Your task to perform on an android device: What is the news today? Image 0: 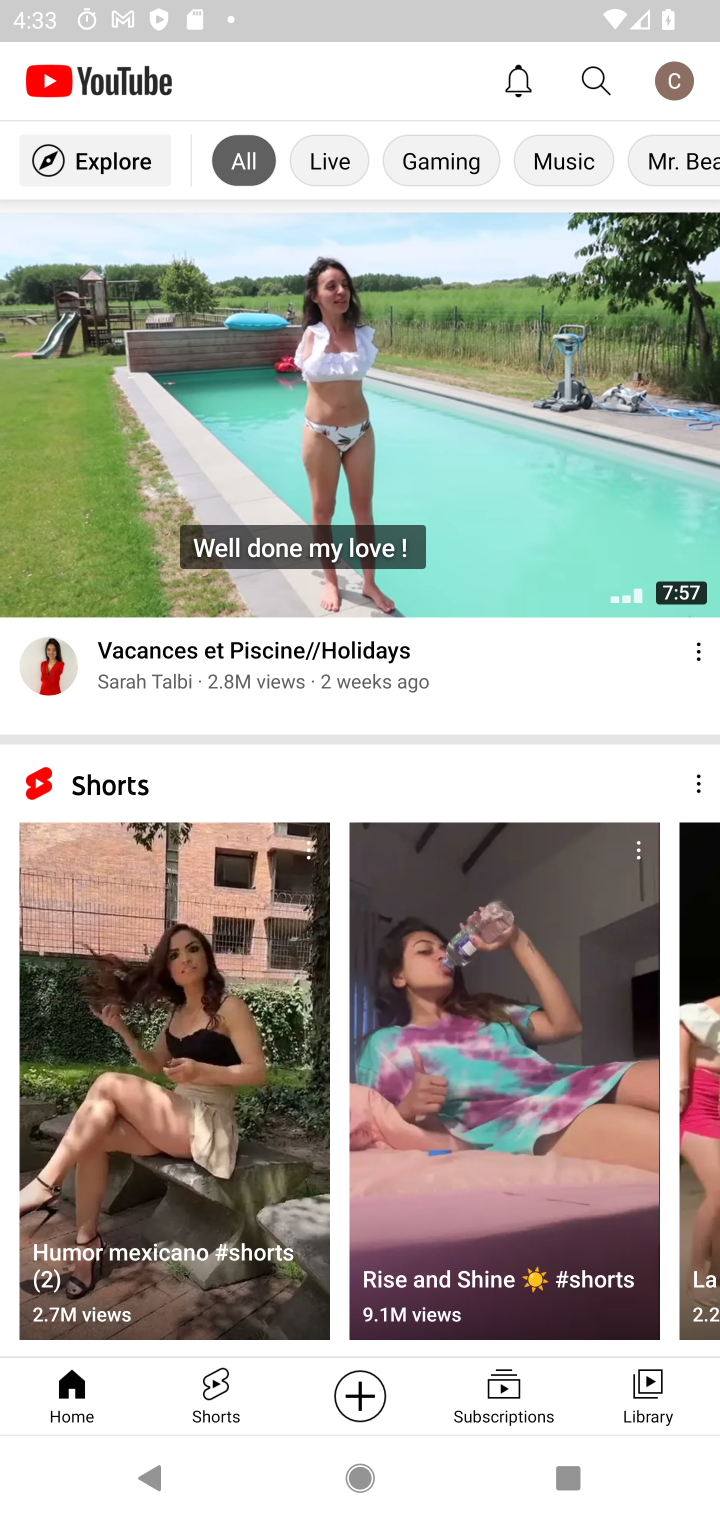
Step 0: click (673, 561)
Your task to perform on an android device: What is the news today? Image 1: 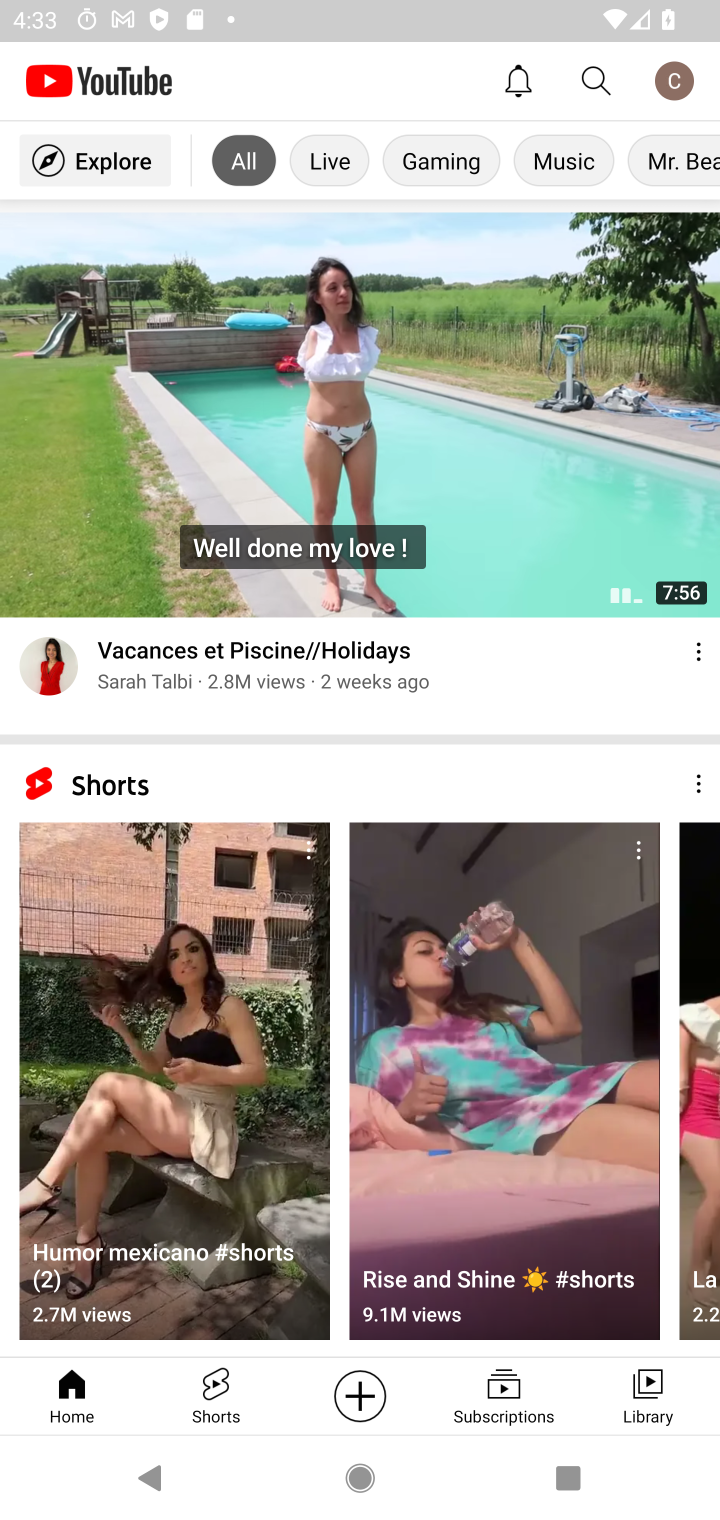
Step 1: press home button
Your task to perform on an android device: What is the news today? Image 2: 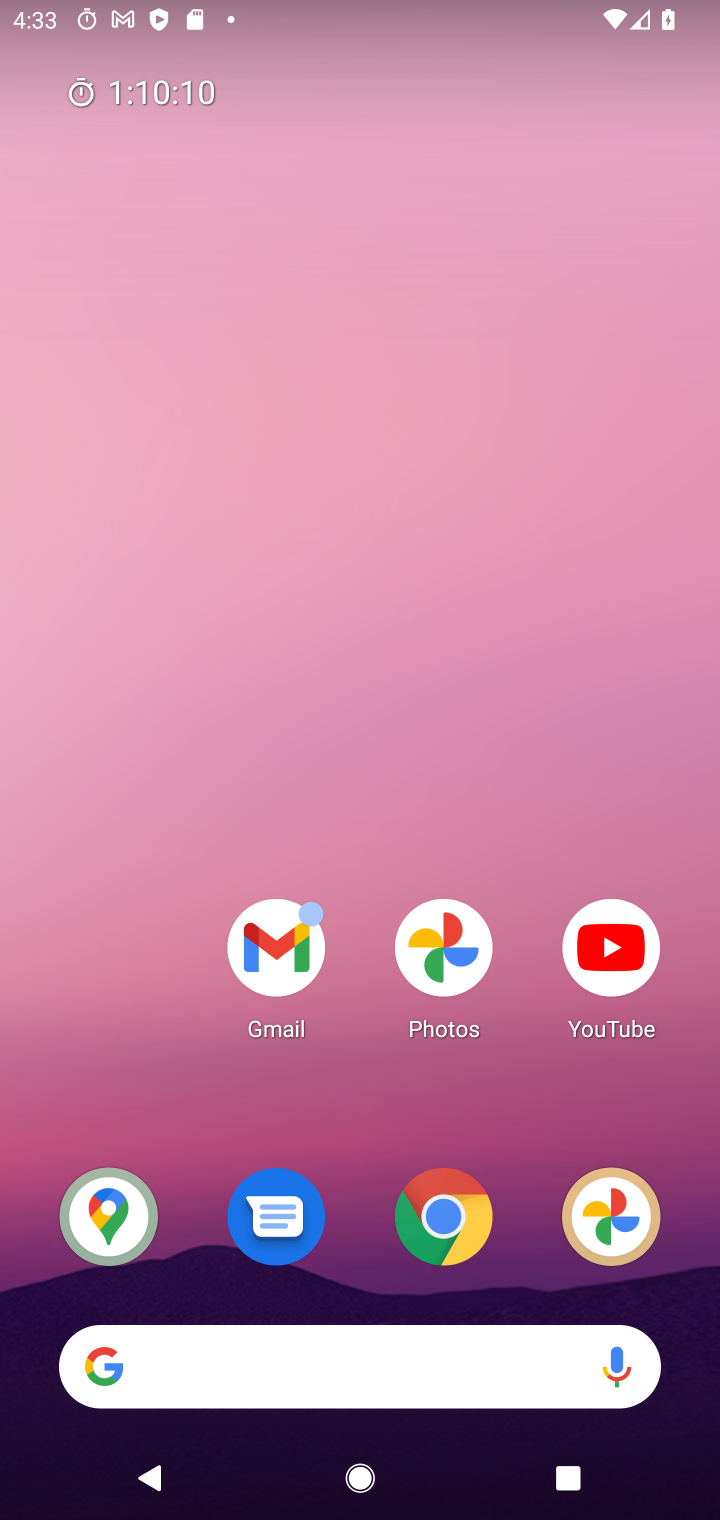
Step 2: click (257, 1369)
Your task to perform on an android device: What is the news today? Image 3: 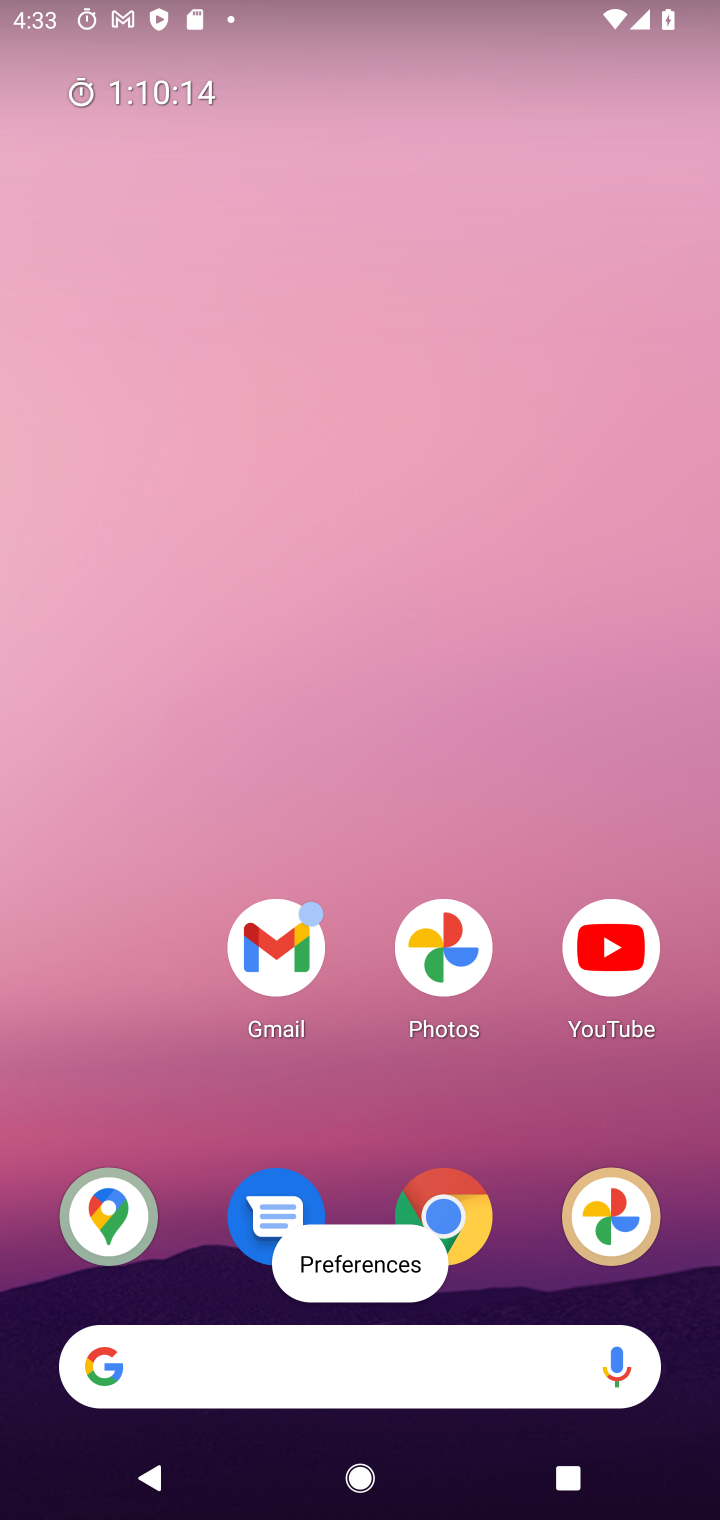
Step 3: click (227, 1371)
Your task to perform on an android device: What is the news today? Image 4: 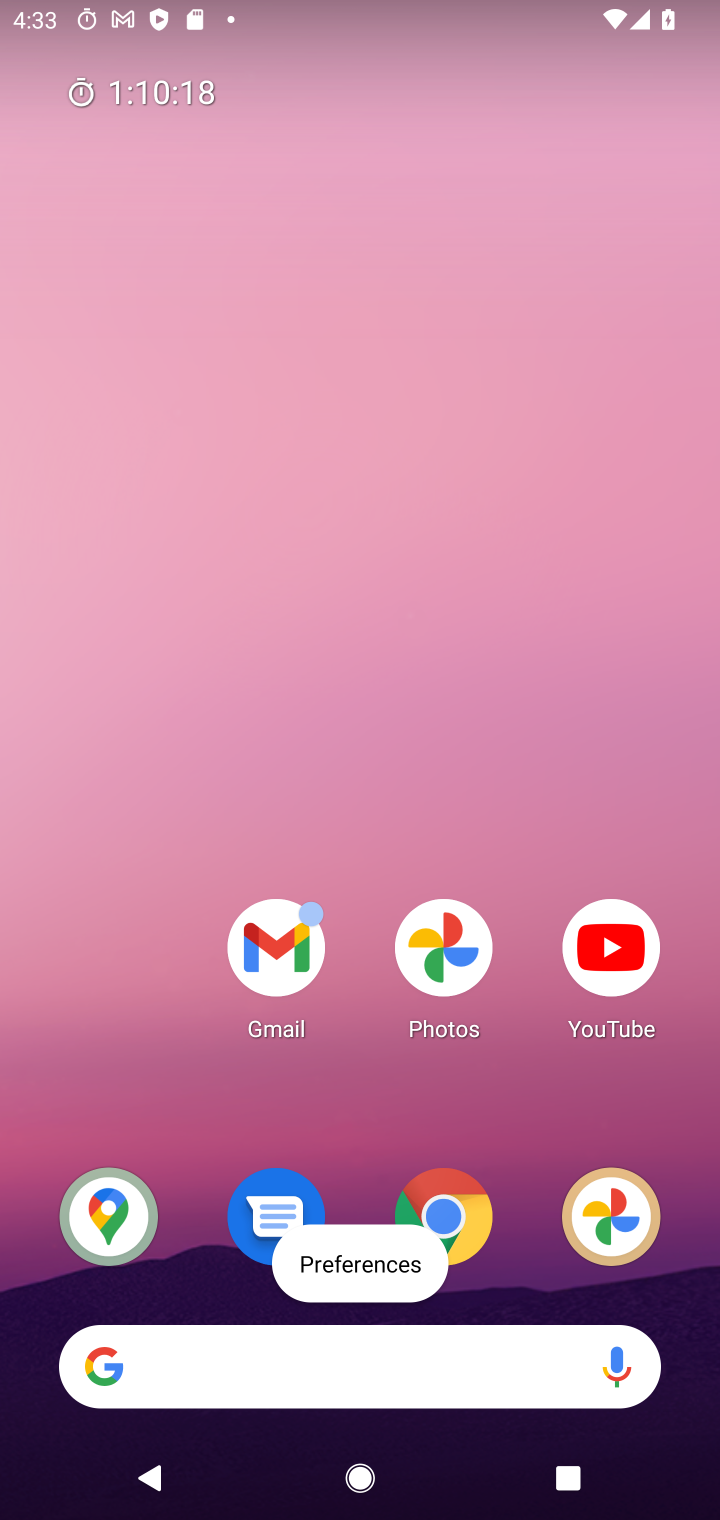
Step 4: click (325, 1366)
Your task to perform on an android device: What is the news today? Image 5: 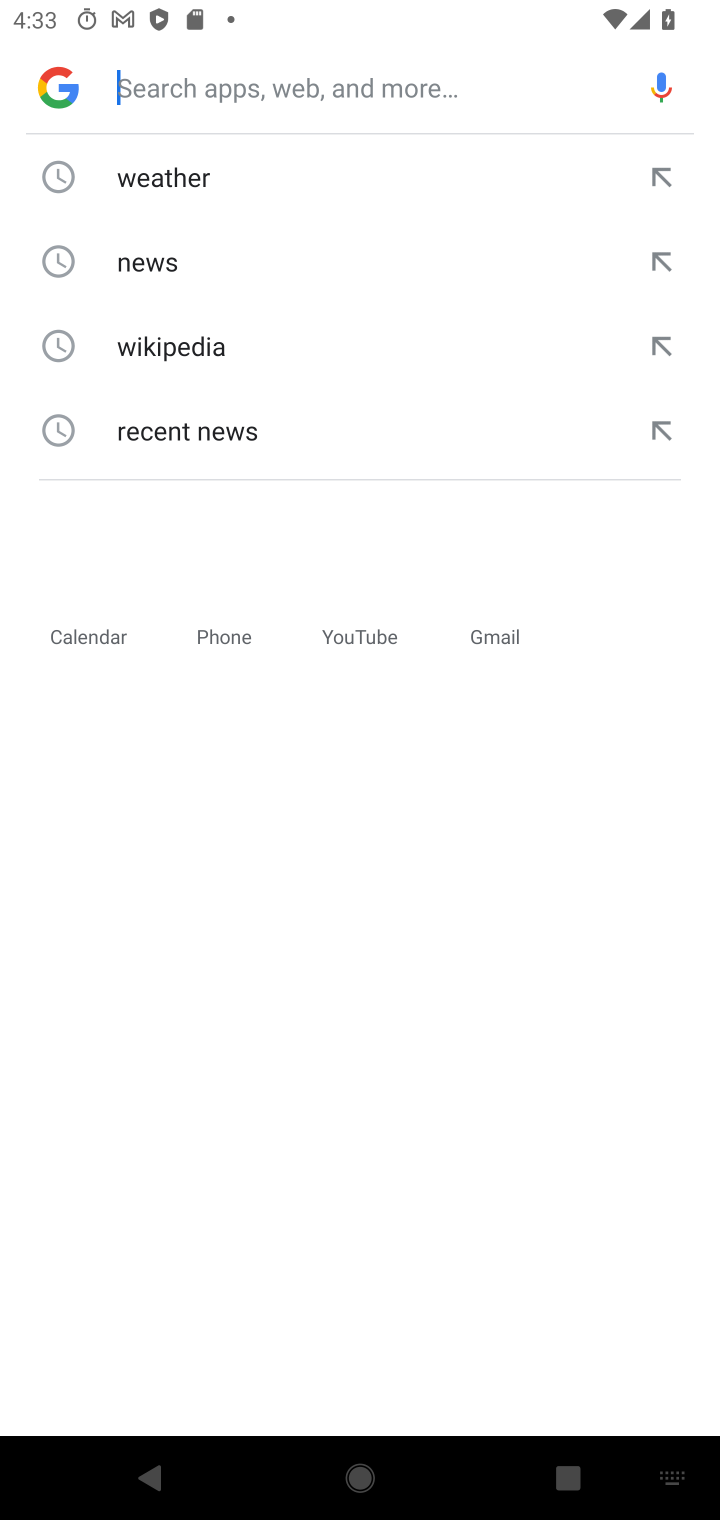
Step 5: click (172, 275)
Your task to perform on an android device: What is the news today? Image 6: 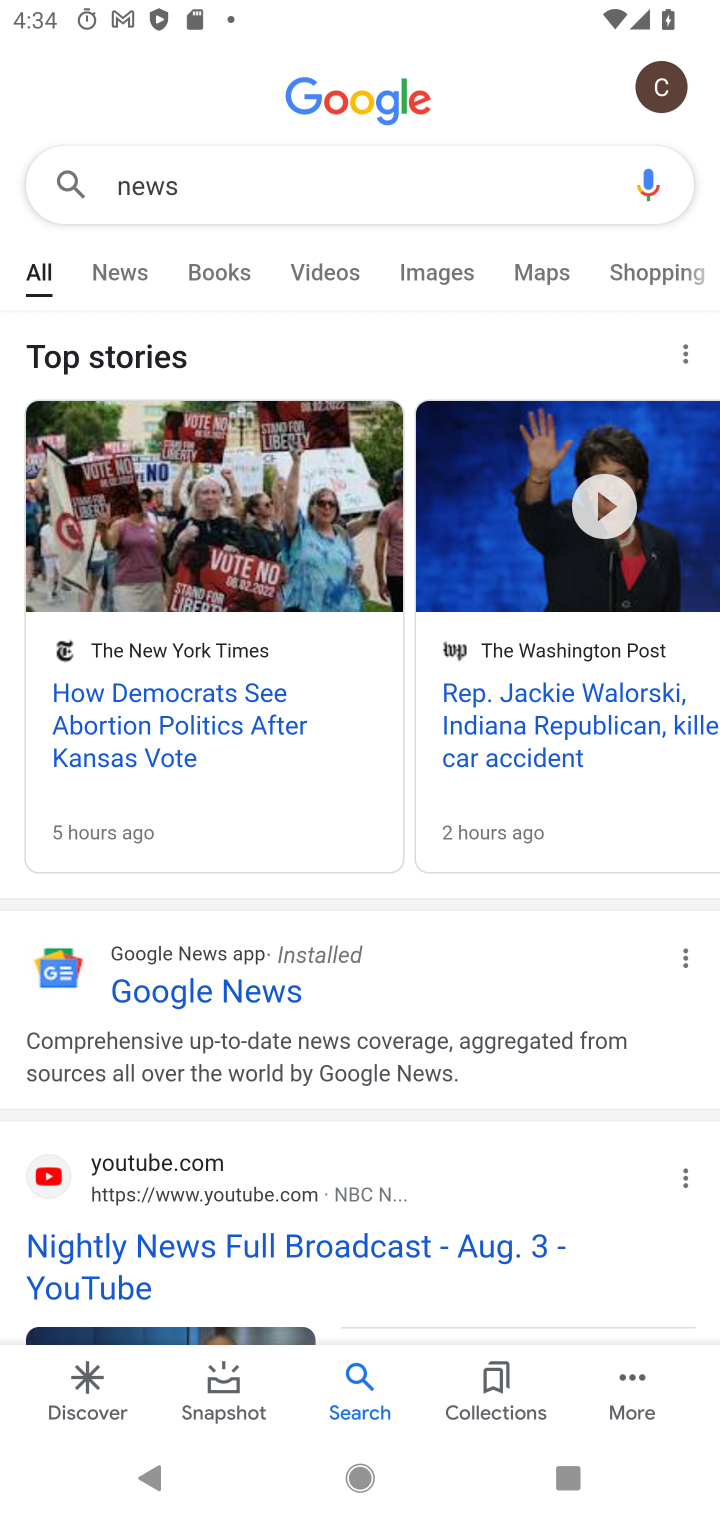
Step 6: task complete